Your task to perform on an android device: Set the phone to "Do not disturb". Image 0: 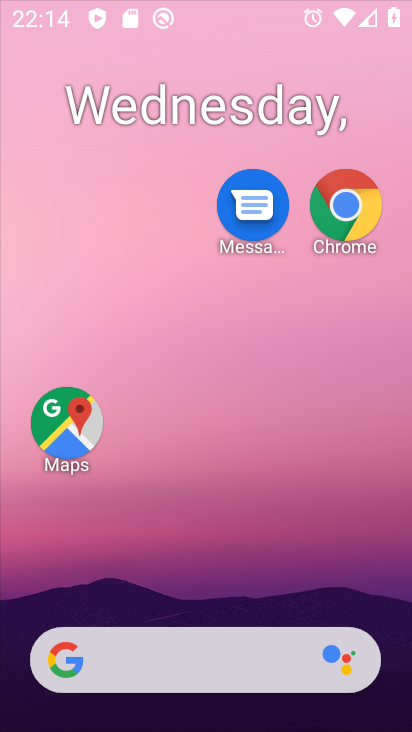
Step 0: click (191, 169)
Your task to perform on an android device: Set the phone to "Do not disturb". Image 1: 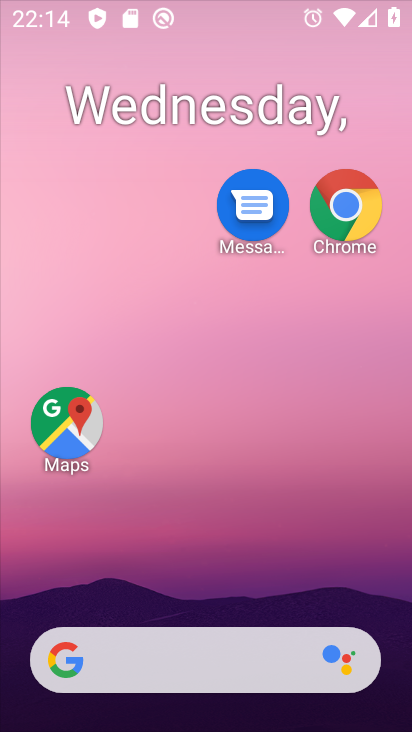
Step 1: drag from (213, 532) to (229, 109)
Your task to perform on an android device: Set the phone to "Do not disturb". Image 2: 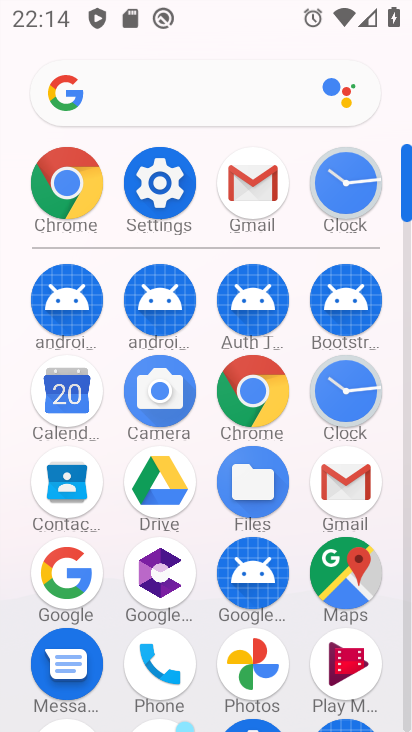
Step 2: click (173, 189)
Your task to perform on an android device: Set the phone to "Do not disturb". Image 3: 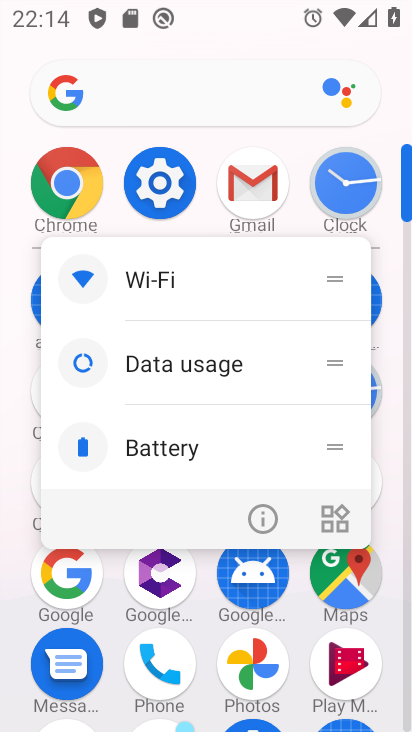
Step 3: click (249, 526)
Your task to perform on an android device: Set the phone to "Do not disturb". Image 4: 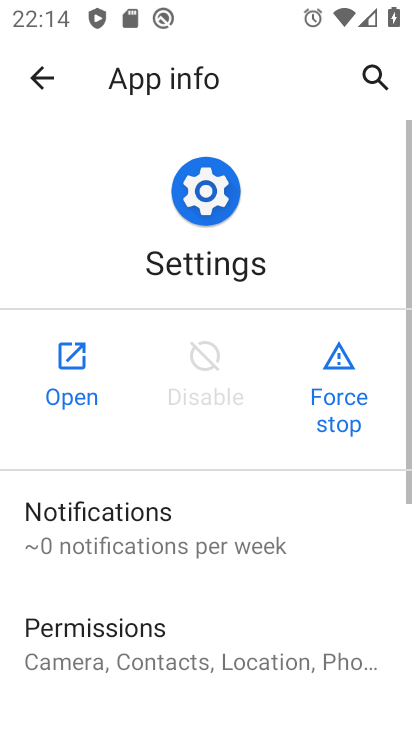
Step 4: click (64, 369)
Your task to perform on an android device: Set the phone to "Do not disturb". Image 5: 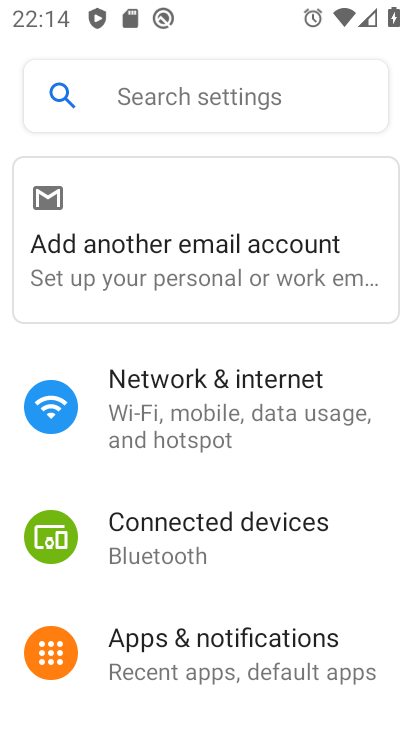
Step 5: click (229, 641)
Your task to perform on an android device: Set the phone to "Do not disturb". Image 6: 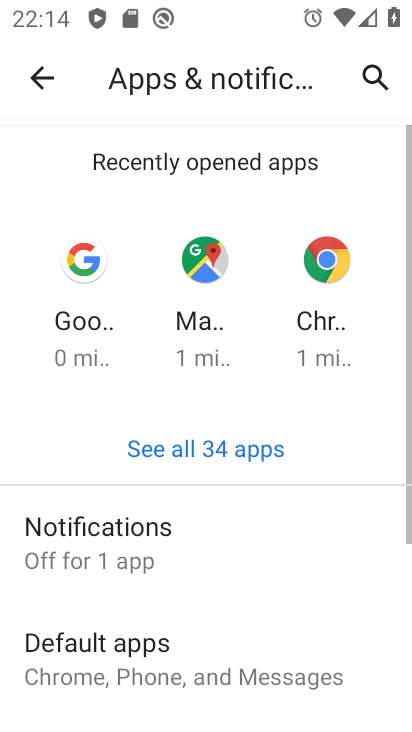
Step 6: click (200, 542)
Your task to perform on an android device: Set the phone to "Do not disturb". Image 7: 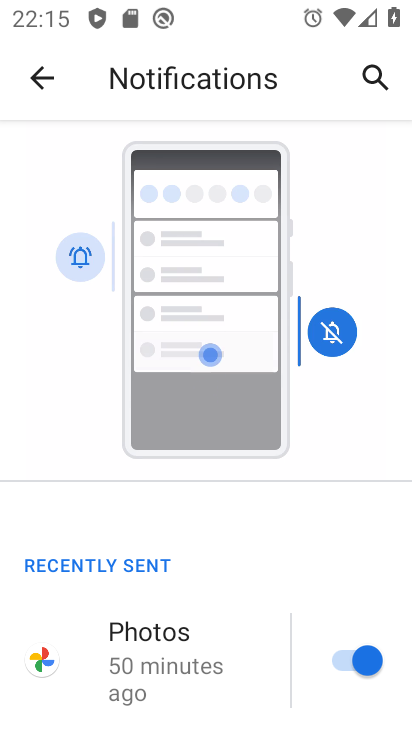
Step 7: drag from (209, 616) to (269, 220)
Your task to perform on an android device: Set the phone to "Do not disturb". Image 8: 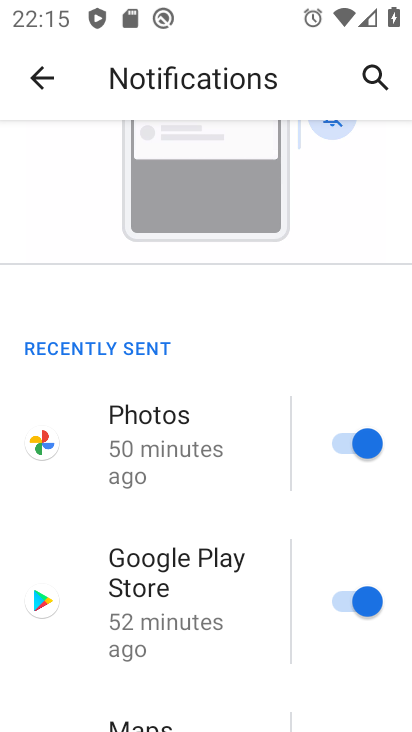
Step 8: drag from (238, 585) to (292, 0)
Your task to perform on an android device: Set the phone to "Do not disturb". Image 9: 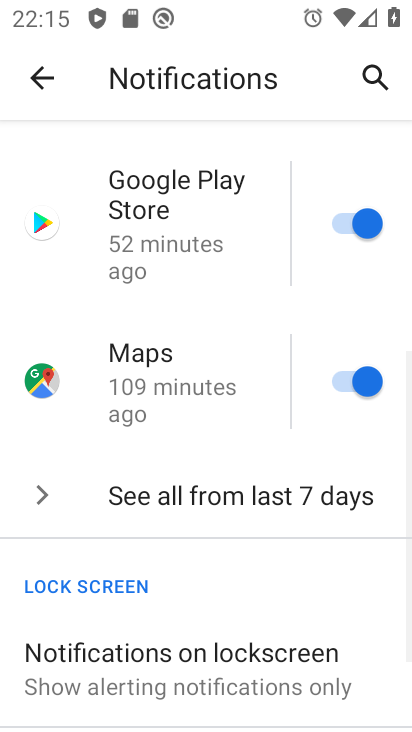
Step 9: drag from (227, 595) to (318, 79)
Your task to perform on an android device: Set the phone to "Do not disturb". Image 10: 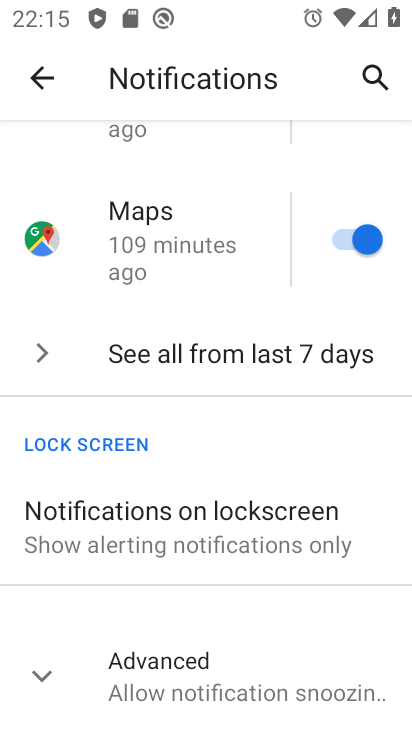
Step 10: click (196, 665)
Your task to perform on an android device: Set the phone to "Do not disturb". Image 11: 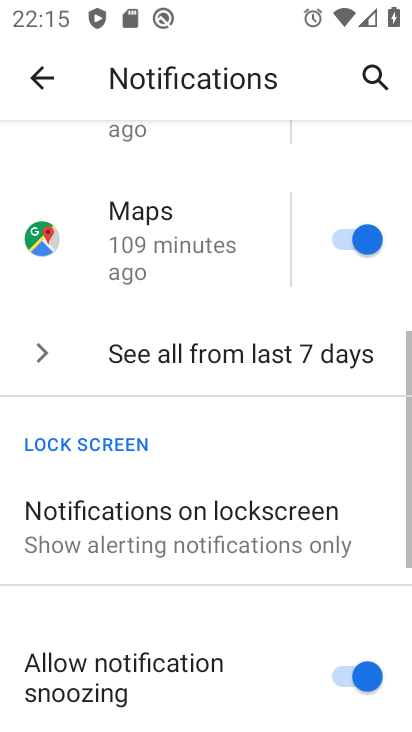
Step 11: drag from (203, 639) to (301, 29)
Your task to perform on an android device: Set the phone to "Do not disturb". Image 12: 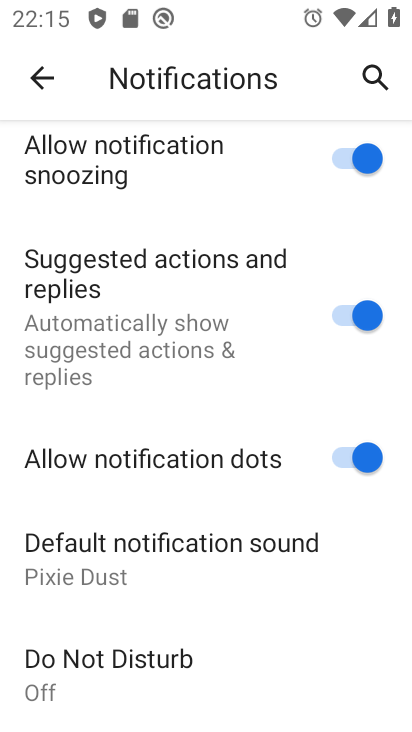
Step 12: drag from (214, 683) to (378, 157)
Your task to perform on an android device: Set the phone to "Do not disturb". Image 13: 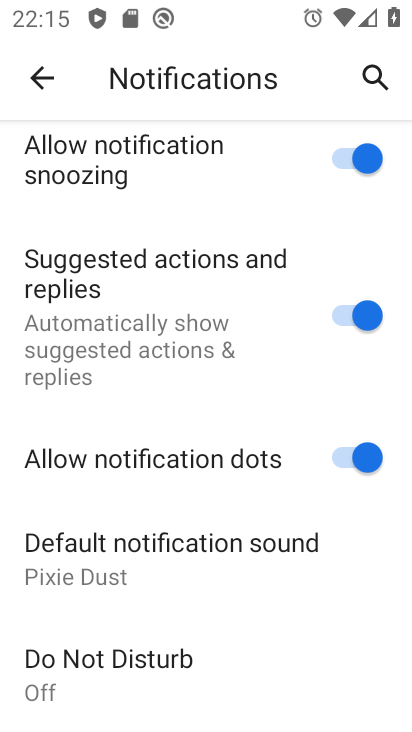
Step 13: click (188, 654)
Your task to perform on an android device: Set the phone to "Do not disturb". Image 14: 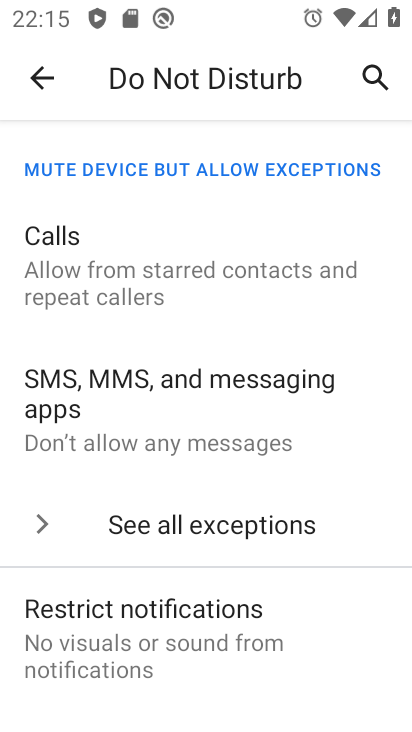
Step 14: drag from (214, 466) to (311, 126)
Your task to perform on an android device: Set the phone to "Do not disturb". Image 15: 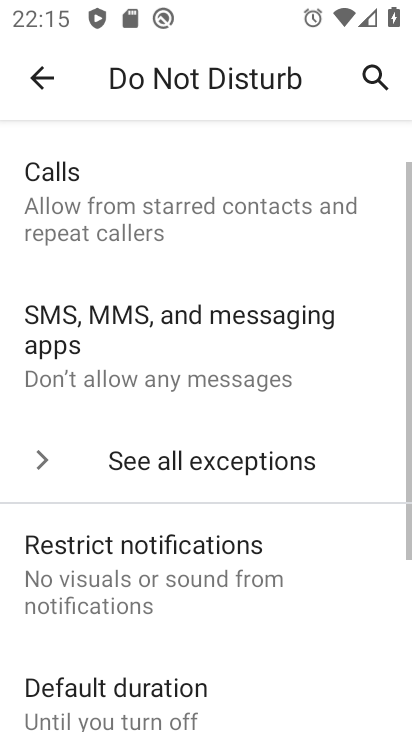
Step 15: drag from (207, 633) to (274, 171)
Your task to perform on an android device: Set the phone to "Do not disturb". Image 16: 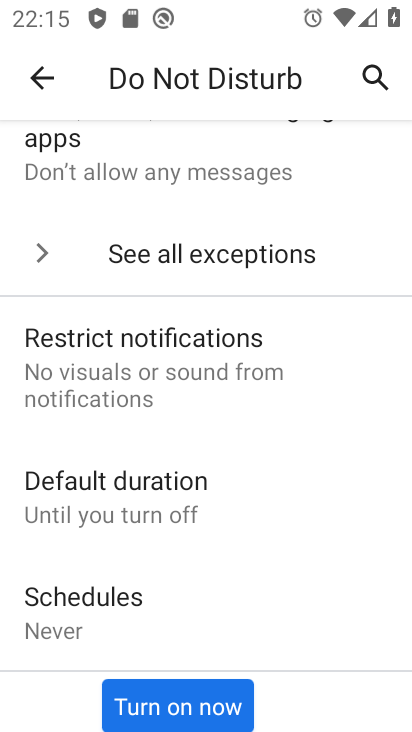
Step 16: click (148, 692)
Your task to perform on an android device: Set the phone to "Do not disturb". Image 17: 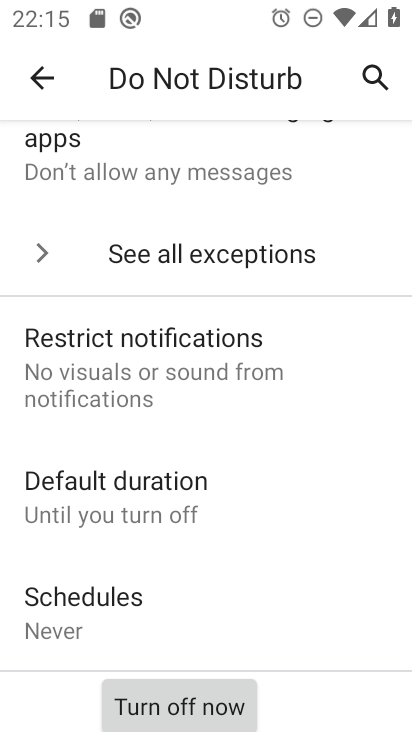
Step 17: task complete